Your task to perform on an android device: Search for Italian restaurants on Maps Image 0: 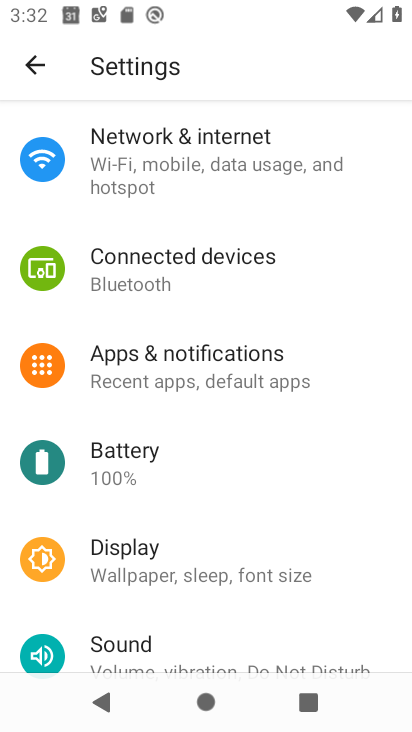
Step 0: press home button
Your task to perform on an android device: Search for Italian restaurants on Maps Image 1: 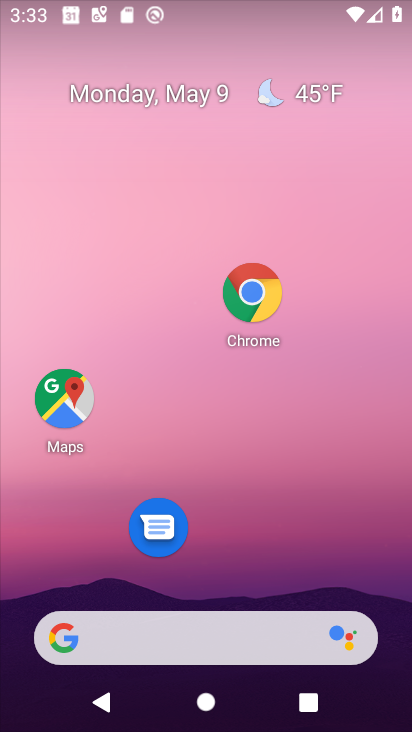
Step 1: drag from (322, 421) to (356, 113)
Your task to perform on an android device: Search for Italian restaurants on Maps Image 2: 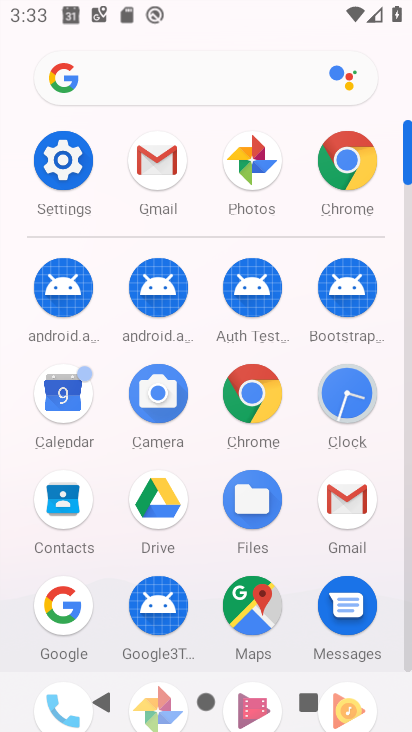
Step 2: click (245, 612)
Your task to perform on an android device: Search for Italian restaurants on Maps Image 3: 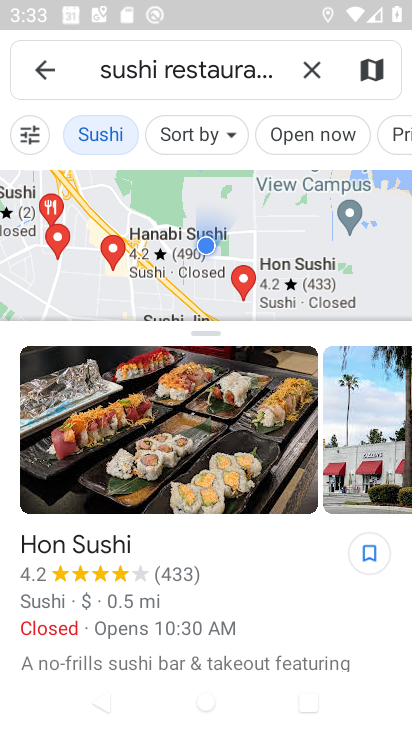
Step 3: click (310, 66)
Your task to perform on an android device: Search for Italian restaurants on Maps Image 4: 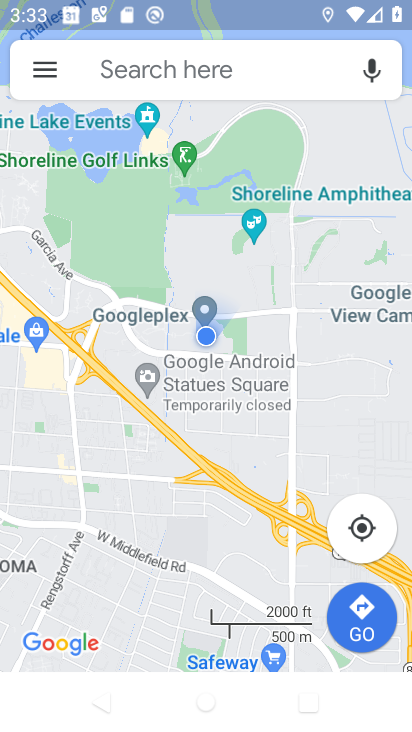
Step 4: click (291, 53)
Your task to perform on an android device: Search for Italian restaurants on Maps Image 5: 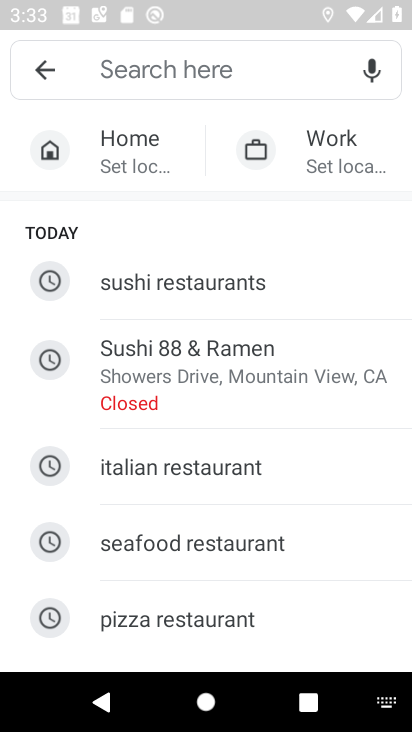
Step 5: click (216, 455)
Your task to perform on an android device: Search for Italian restaurants on Maps Image 6: 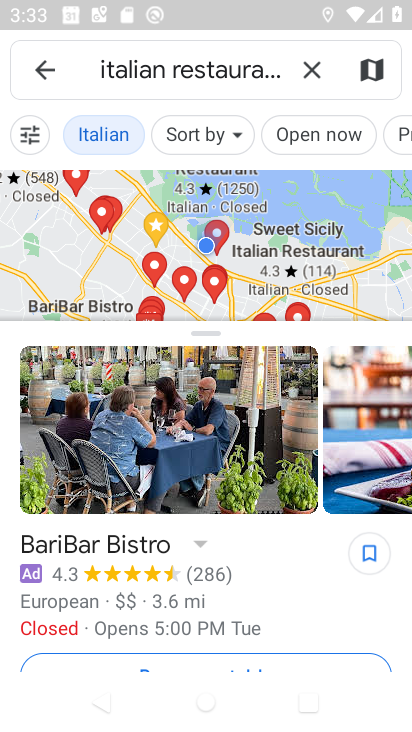
Step 6: task complete